Your task to perform on an android device: open wifi settings Image 0: 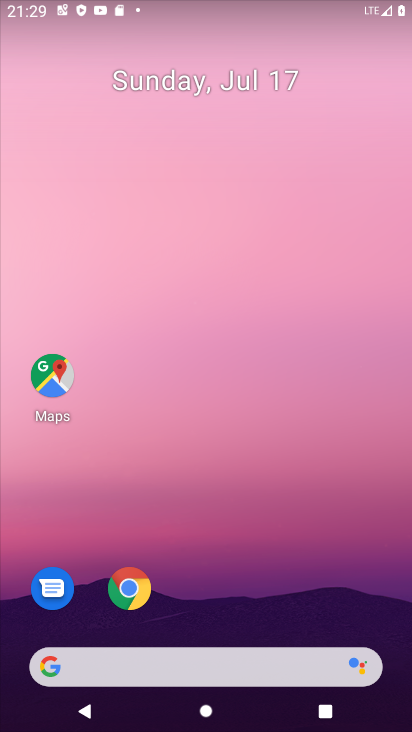
Step 0: press home button
Your task to perform on an android device: open wifi settings Image 1: 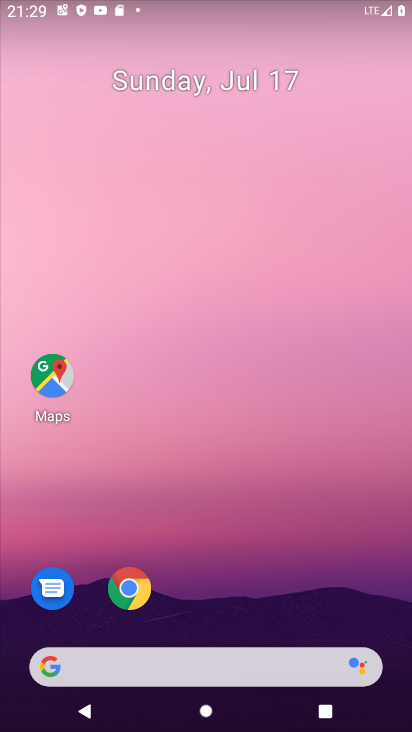
Step 1: drag from (200, 611) to (248, 38)
Your task to perform on an android device: open wifi settings Image 2: 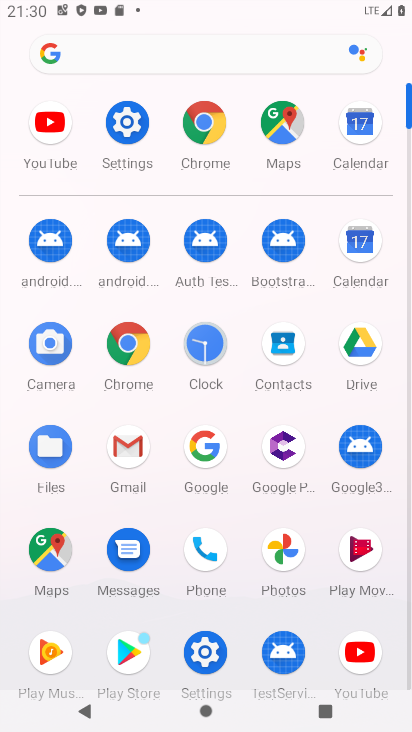
Step 2: drag from (399, 9) to (343, 176)
Your task to perform on an android device: open wifi settings Image 3: 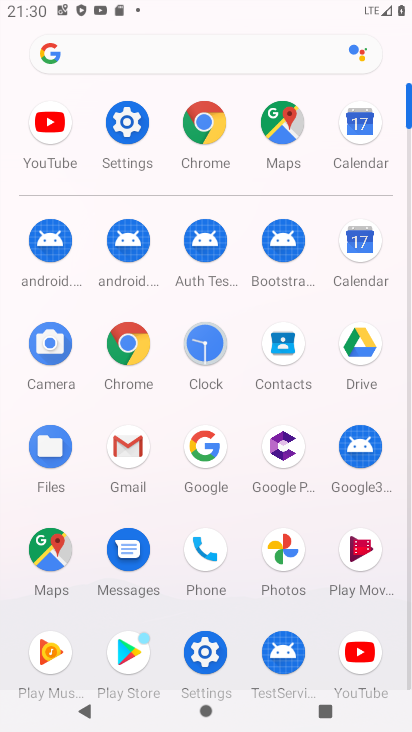
Step 3: drag from (372, 8) to (299, 353)
Your task to perform on an android device: open wifi settings Image 4: 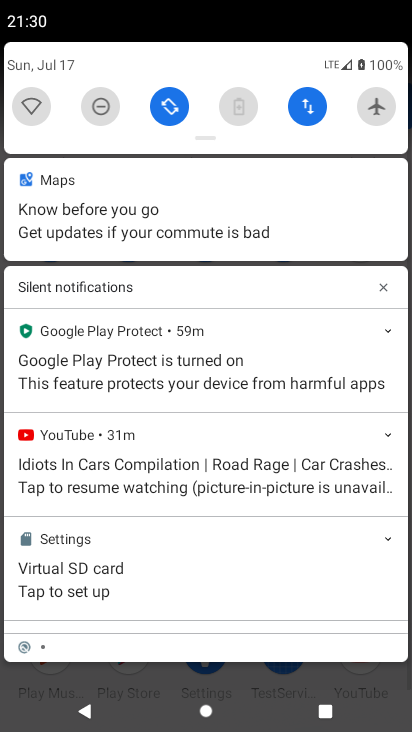
Step 4: drag from (198, 131) to (257, 559)
Your task to perform on an android device: open wifi settings Image 5: 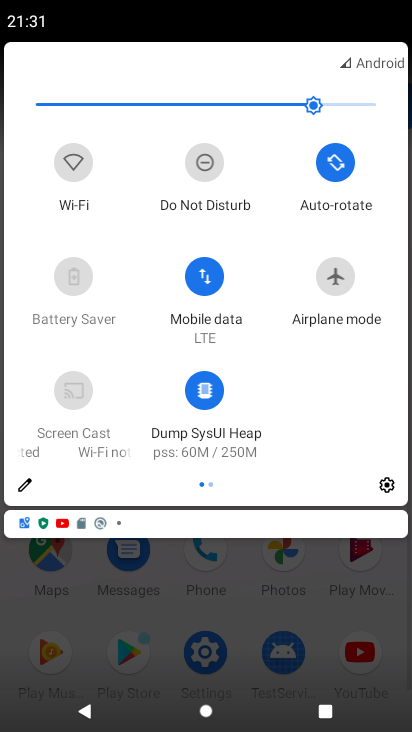
Step 5: click (53, 169)
Your task to perform on an android device: open wifi settings Image 6: 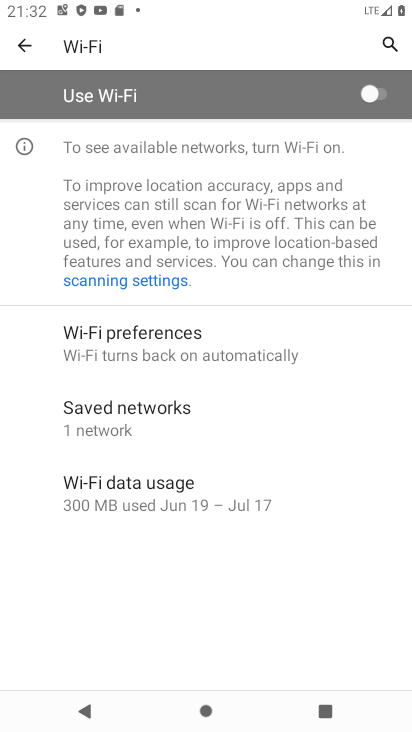
Step 6: task complete